Your task to perform on an android device: What's the weather today? Image 0: 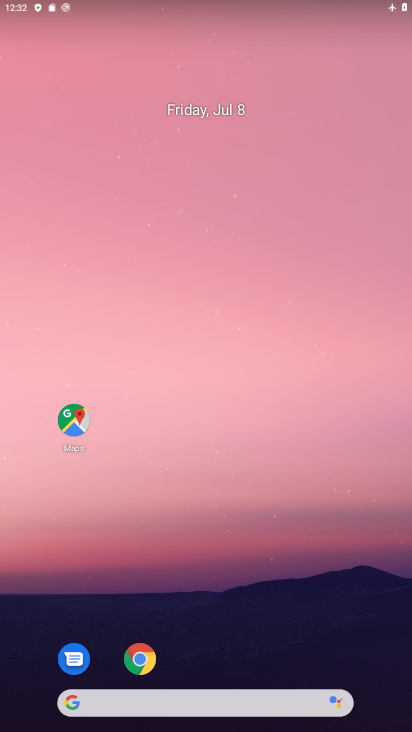
Step 0: drag from (1, 227) to (385, 226)
Your task to perform on an android device: What's the weather today? Image 1: 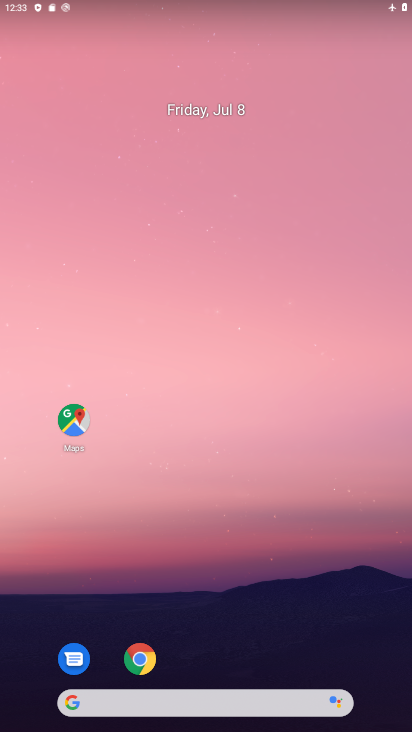
Step 1: drag from (4, 244) to (369, 269)
Your task to perform on an android device: What's the weather today? Image 2: 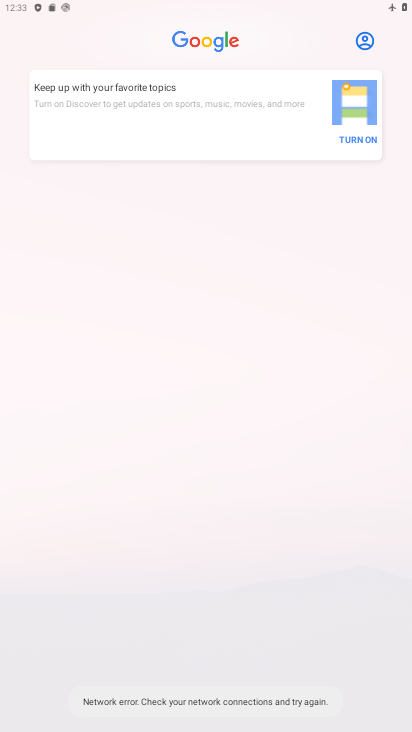
Step 2: drag from (403, 325) to (40, 293)
Your task to perform on an android device: What's the weather today? Image 3: 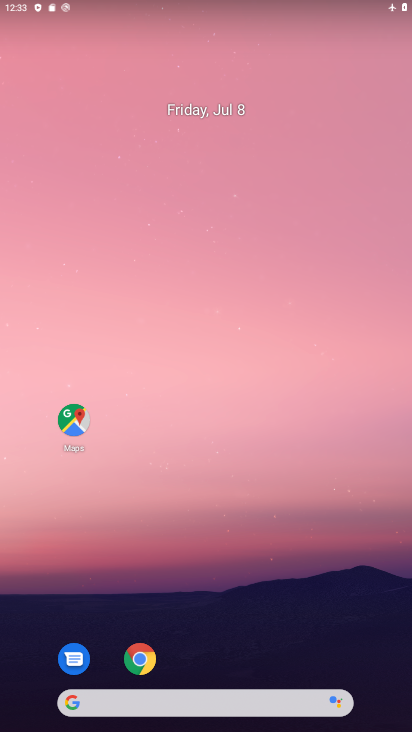
Step 3: click (157, 701)
Your task to perform on an android device: What's the weather today? Image 4: 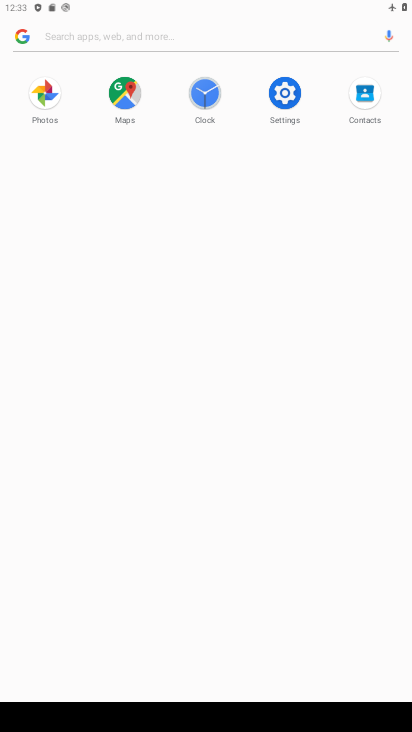
Step 4: type "weather"
Your task to perform on an android device: What's the weather today? Image 5: 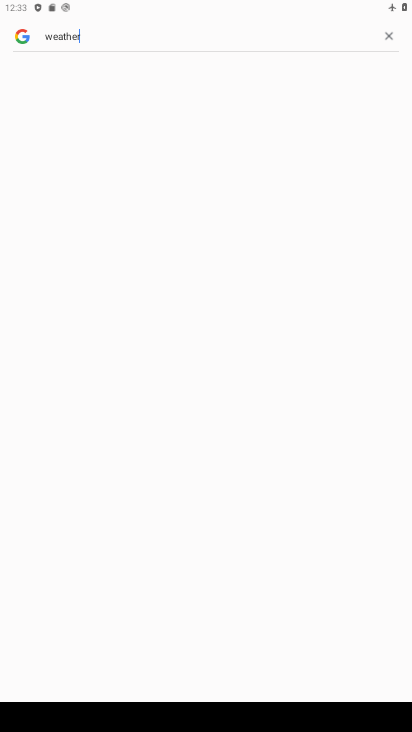
Step 5: task complete